Your task to perform on an android device: change timer sound Image 0: 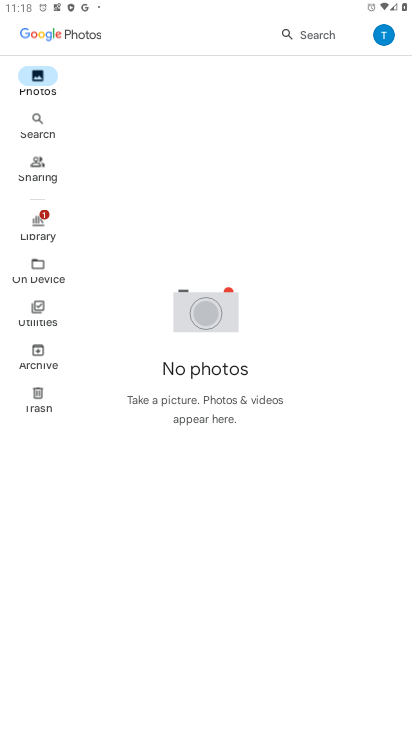
Step 0: press home button
Your task to perform on an android device: change timer sound Image 1: 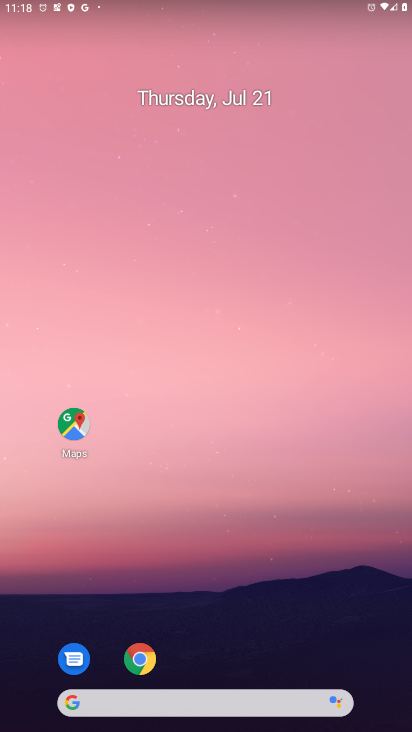
Step 1: drag from (217, 698) to (211, 153)
Your task to perform on an android device: change timer sound Image 2: 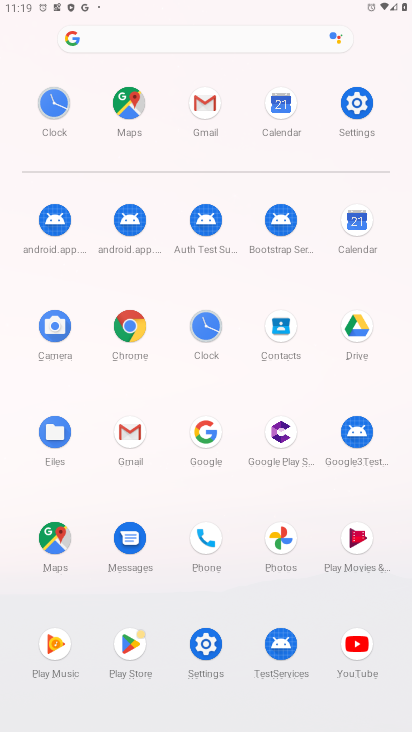
Step 2: click (55, 104)
Your task to perform on an android device: change timer sound Image 3: 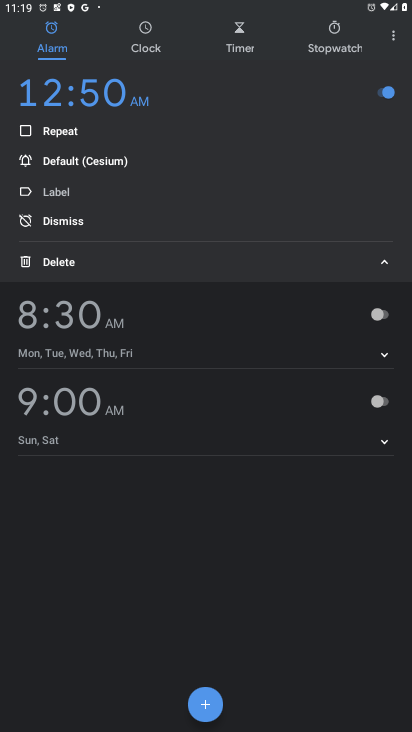
Step 3: click (396, 37)
Your task to perform on an android device: change timer sound Image 4: 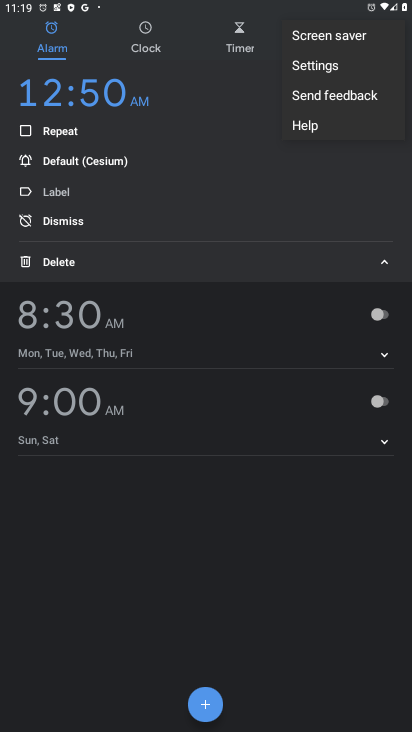
Step 4: click (332, 65)
Your task to perform on an android device: change timer sound Image 5: 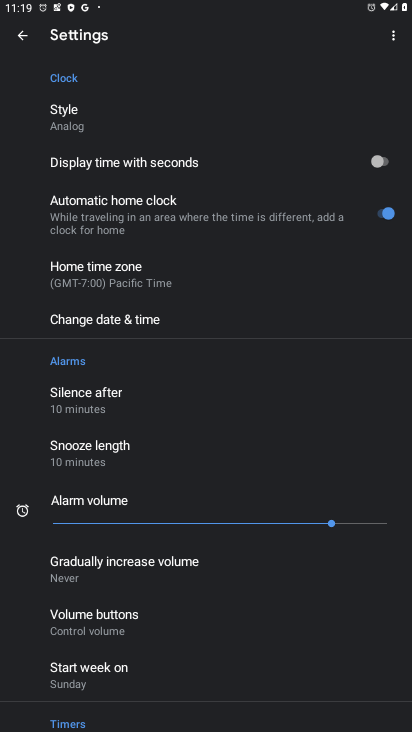
Step 5: drag from (146, 585) to (168, 348)
Your task to perform on an android device: change timer sound Image 6: 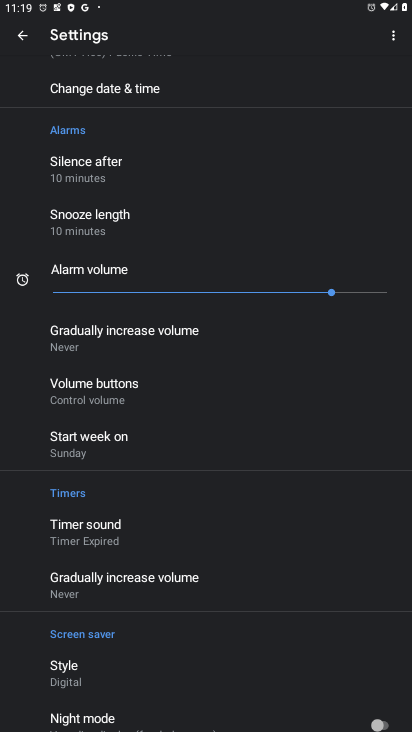
Step 6: click (94, 543)
Your task to perform on an android device: change timer sound Image 7: 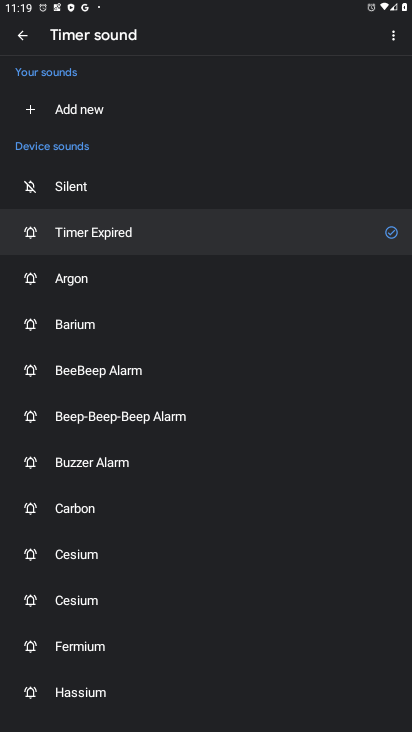
Step 7: drag from (168, 637) to (233, 315)
Your task to perform on an android device: change timer sound Image 8: 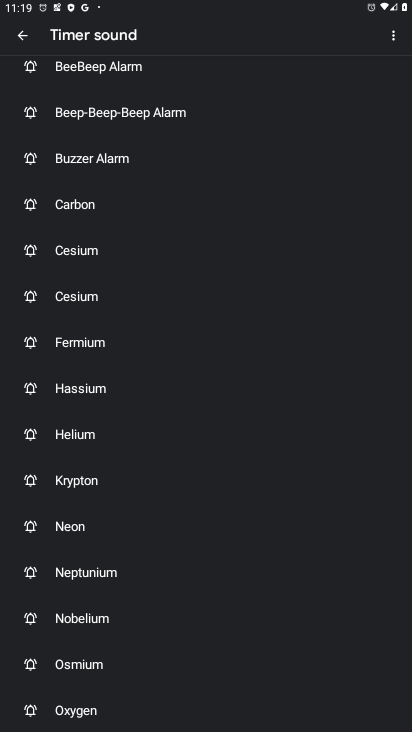
Step 8: click (84, 388)
Your task to perform on an android device: change timer sound Image 9: 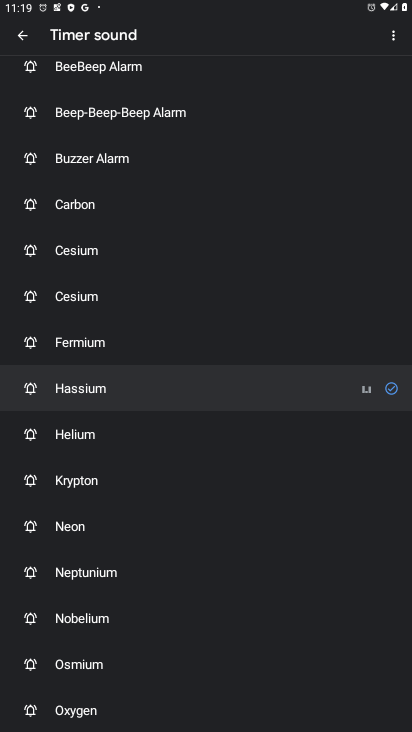
Step 9: task complete